Your task to perform on an android device: Open location settings Image 0: 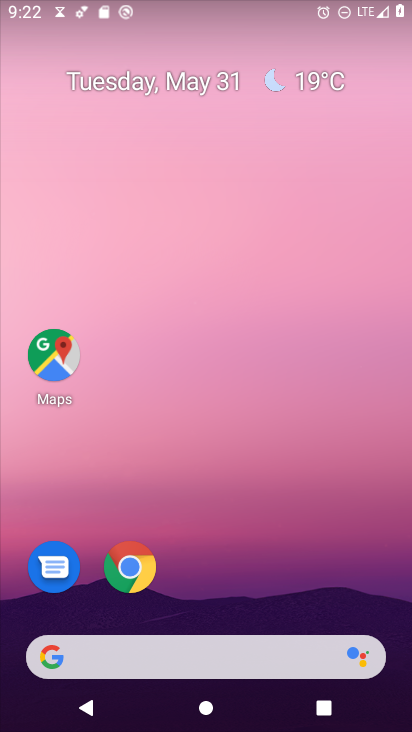
Step 0: drag from (189, 617) to (257, 172)
Your task to perform on an android device: Open location settings Image 1: 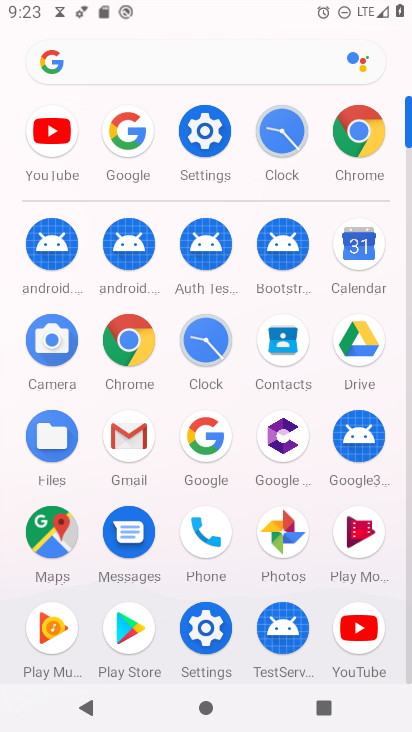
Step 1: click (204, 123)
Your task to perform on an android device: Open location settings Image 2: 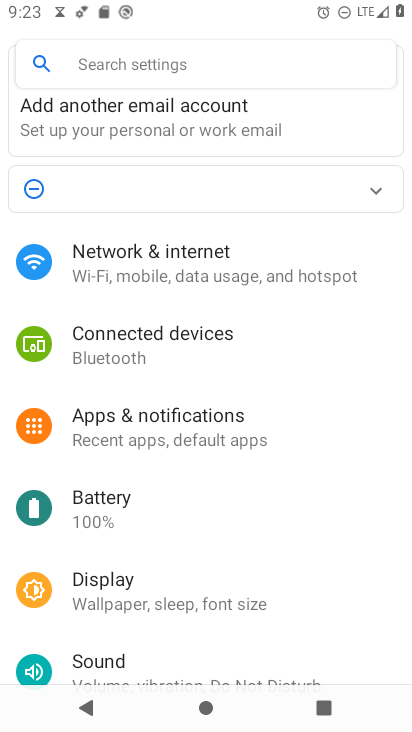
Step 2: drag from (157, 666) to (179, 252)
Your task to perform on an android device: Open location settings Image 3: 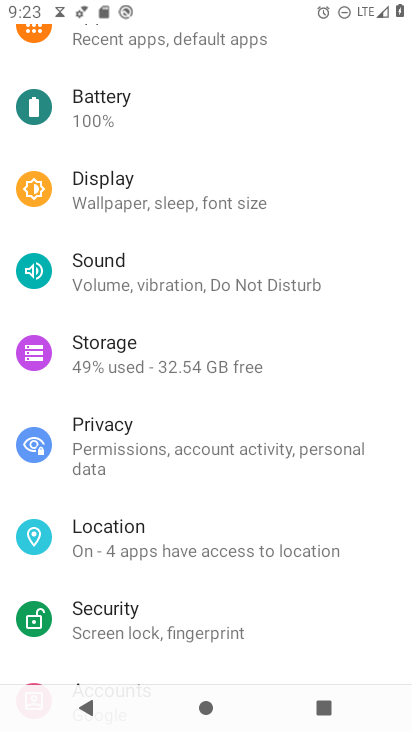
Step 3: click (115, 545)
Your task to perform on an android device: Open location settings Image 4: 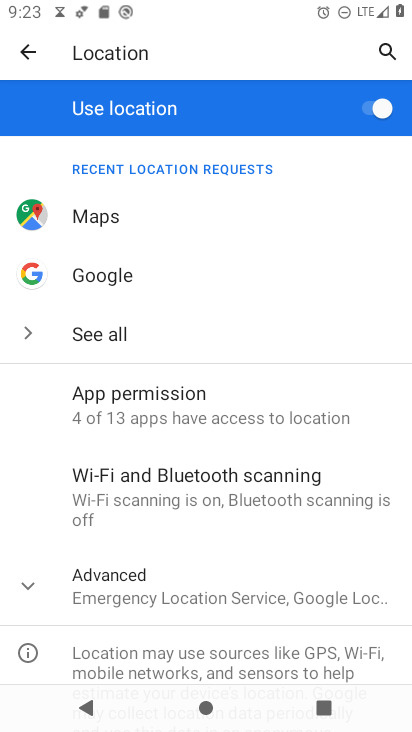
Step 4: click (161, 590)
Your task to perform on an android device: Open location settings Image 5: 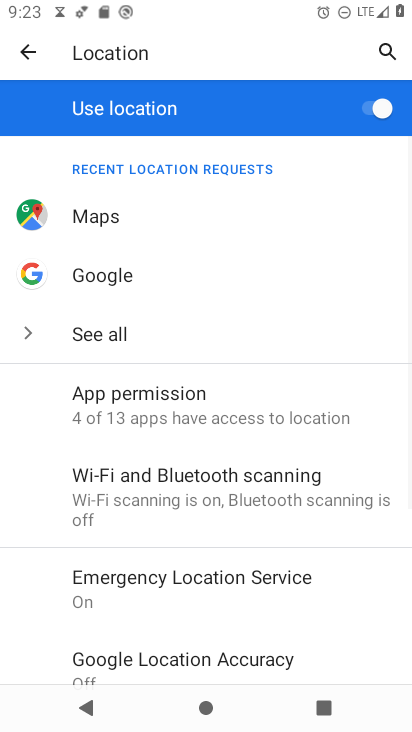
Step 5: task complete